Your task to perform on an android device: Open CNN.com Image 0: 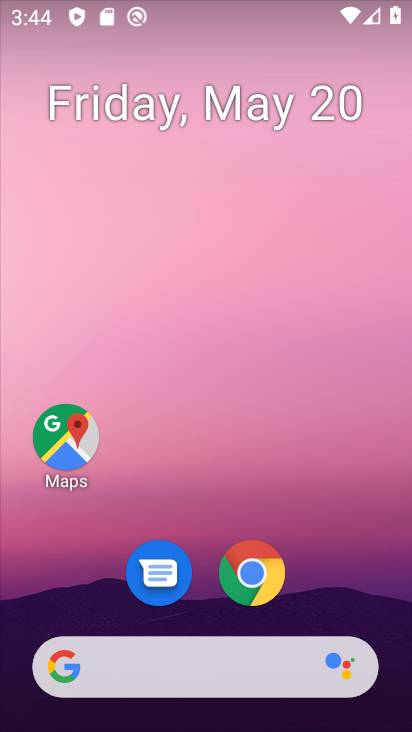
Step 0: drag from (345, 520) to (291, 92)
Your task to perform on an android device: Open CNN.com Image 1: 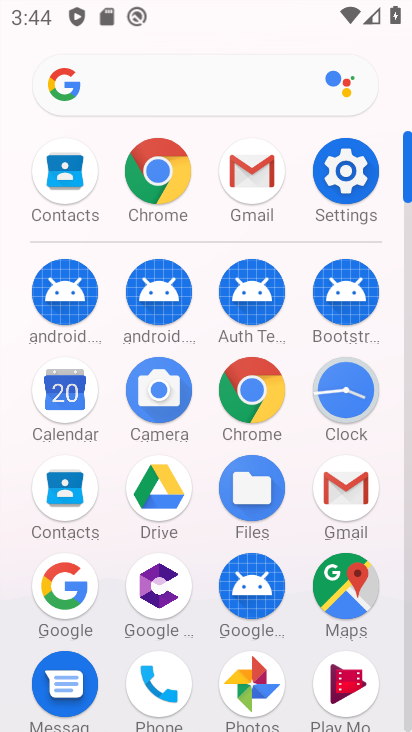
Step 1: click (259, 411)
Your task to perform on an android device: Open CNN.com Image 2: 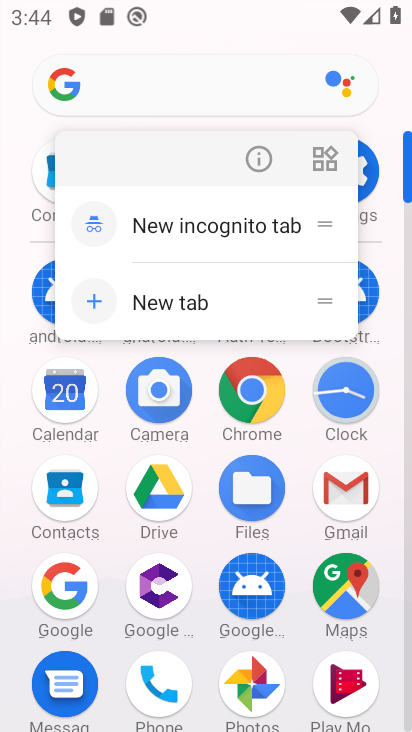
Step 2: click (259, 406)
Your task to perform on an android device: Open CNN.com Image 3: 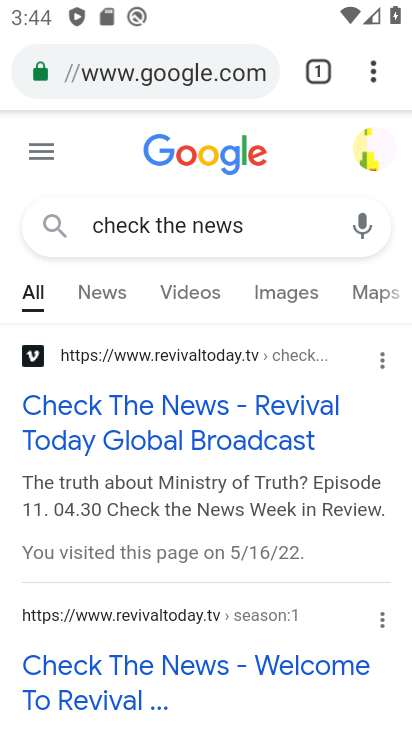
Step 3: click (144, 73)
Your task to perform on an android device: Open CNN.com Image 4: 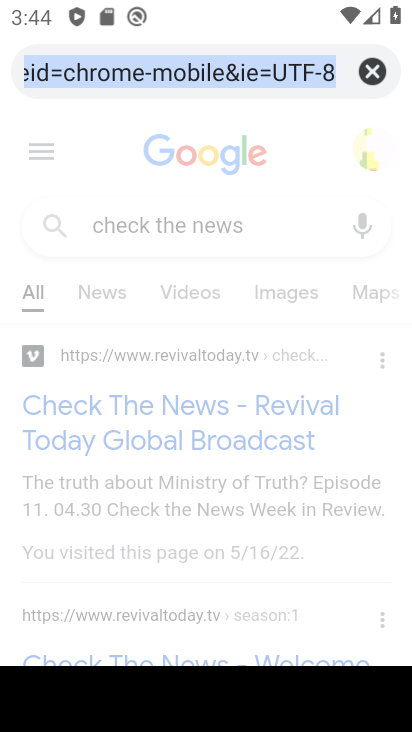
Step 4: click (371, 76)
Your task to perform on an android device: Open CNN.com Image 5: 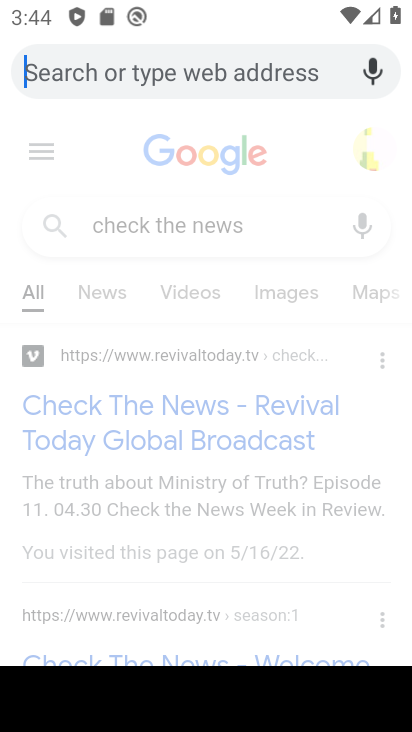
Step 5: type "cnn.com"
Your task to perform on an android device: Open CNN.com Image 6: 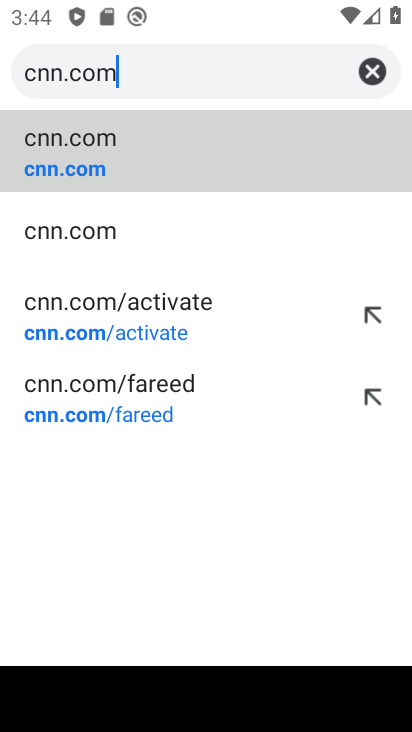
Step 6: click (101, 148)
Your task to perform on an android device: Open CNN.com Image 7: 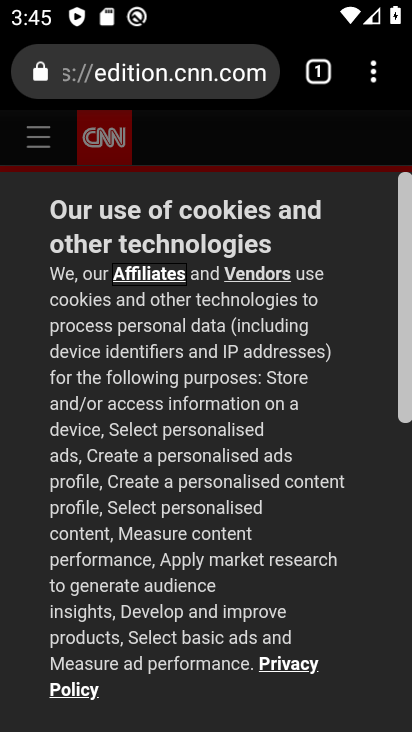
Step 7: task complete